Your task to perform on an android device: Go to sound settings Image 0: 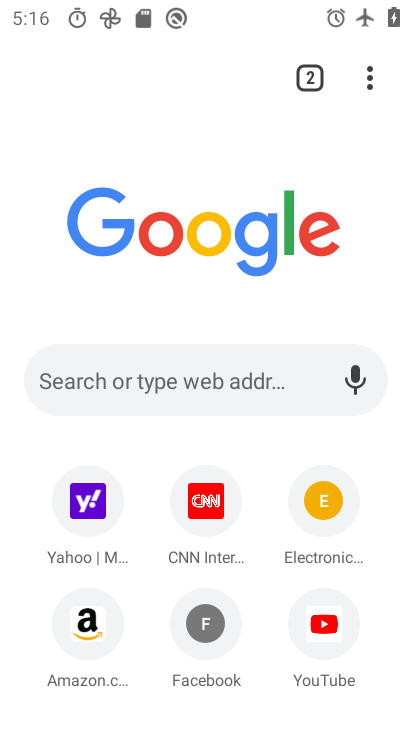
Step 0: press home button
Your task to perform on an android device: Go to sound settings Image 1: 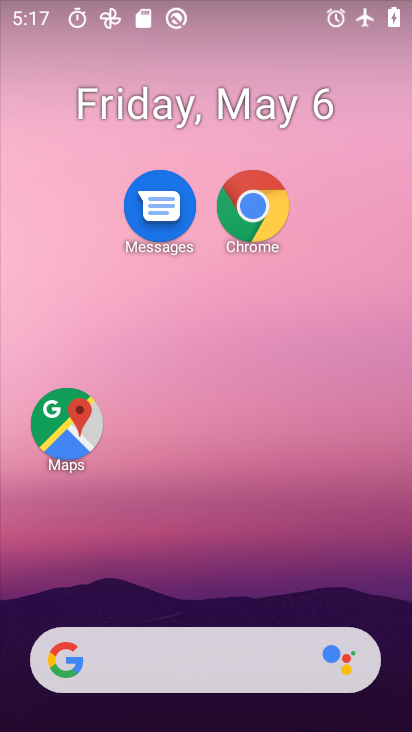
Step 1: drag from (200, 624) to (117, 255)
Your task to perform on an android device: Go to sound settings Image 2: 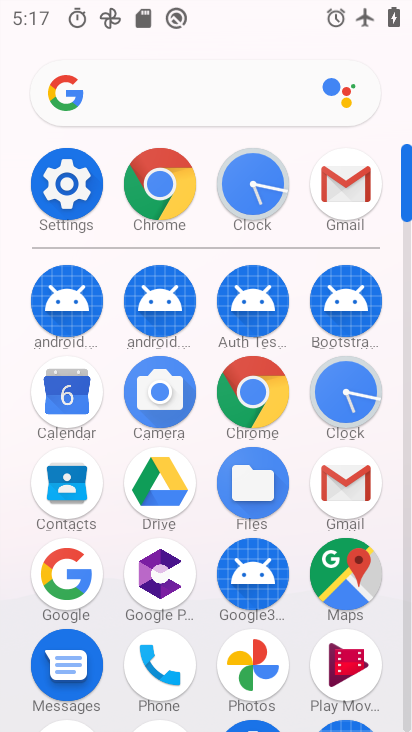
Step 2: click (77, 200)
Your task to perform on an android device: Go to sound settings Image 3: 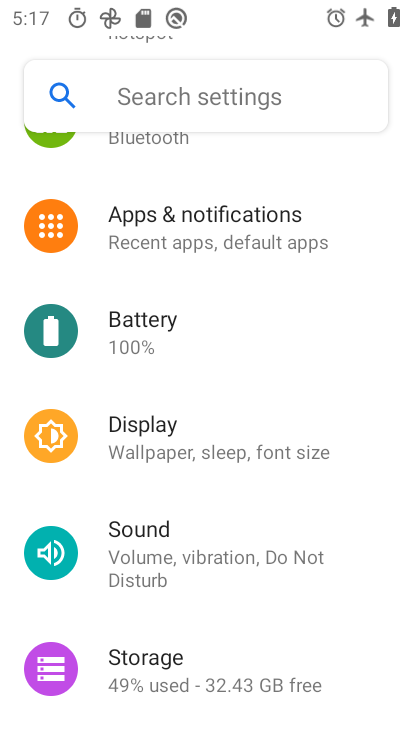
Step 3: click (152, 555)
Your task to perform on an android device: Go to sound settings Image 4: 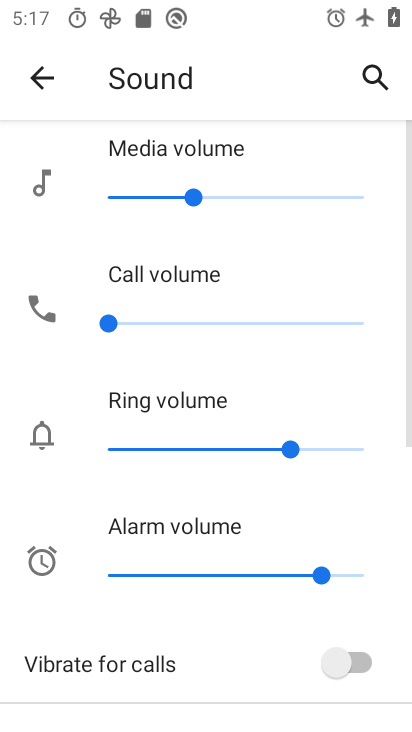
Step 4: task complete